Your task to perform on an android device: What's the weather? Image 0: 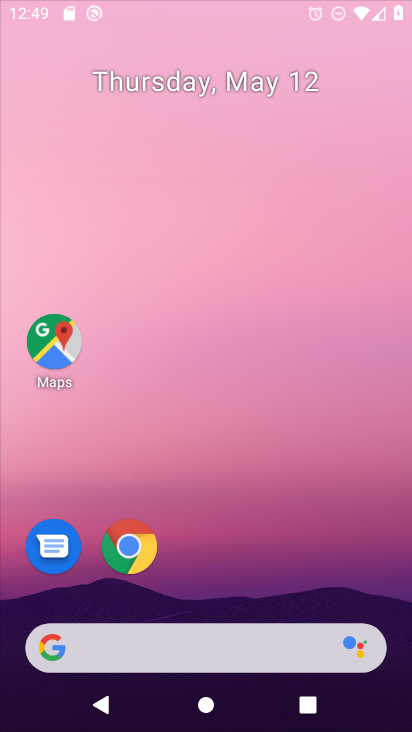
Step 0: drag from (393, 629) to (270, 88)
Your task to perform on an android device: What's the weather? Image 1: 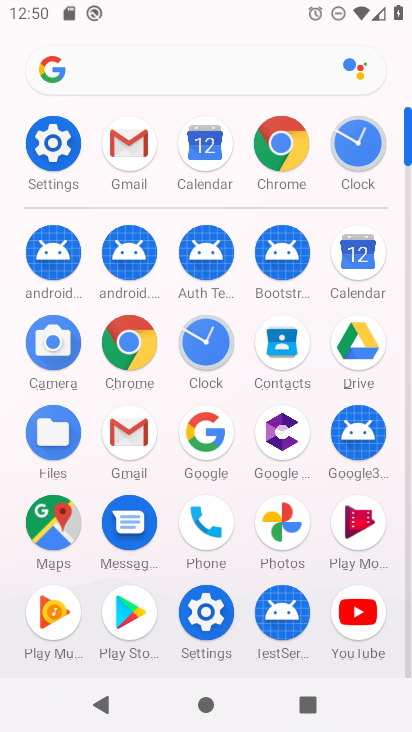
Step 1: press home button
Your task to perform on an android device: What's the weather? Image 2: 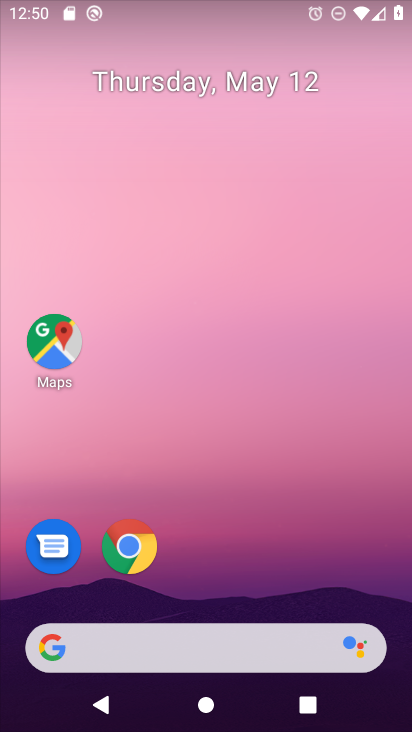
Step 2: click (179, 650)
Your task to perform on an android device: What's the weather? Image 3: 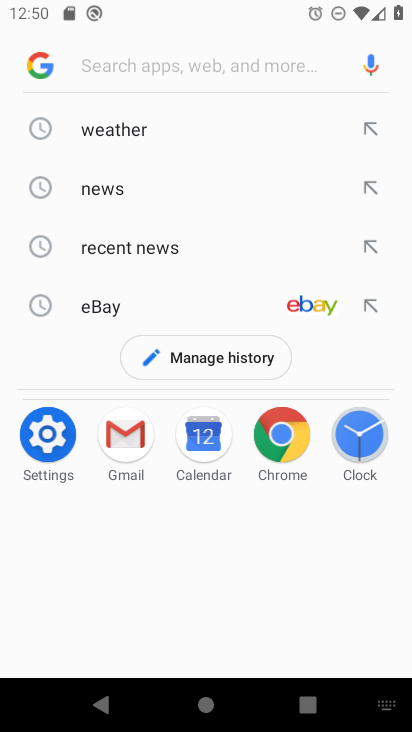
Step 3: click (140, 114)
Your task to perform on an android device: What's the weather? Image 4: 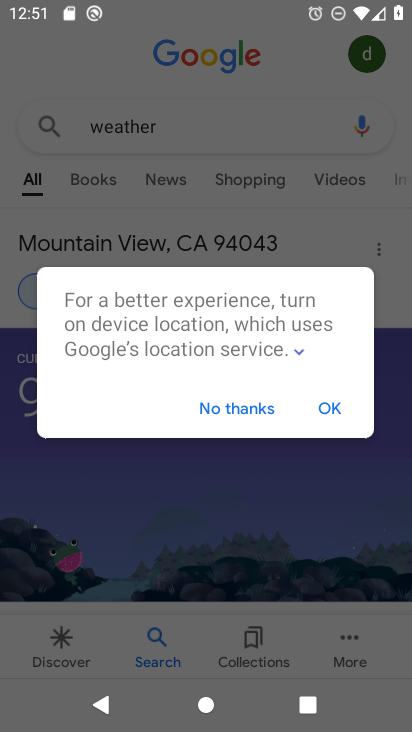
Step 4: click (246, 417)
Your task to perform on an android device: What's the weather? Image 5: 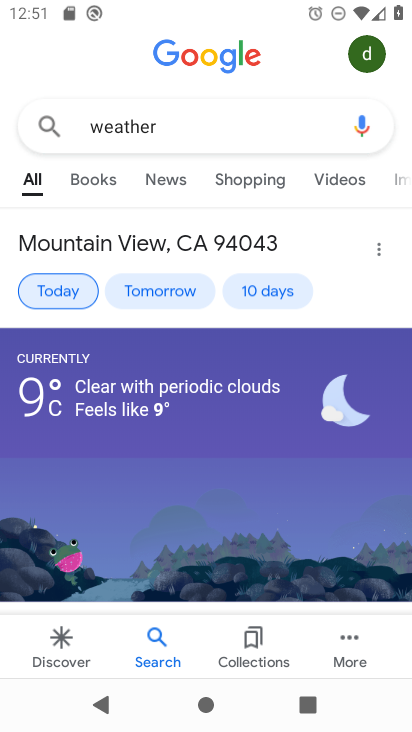
Step 5: task complete